Your task to perform on an android device: Go to Yahoo.com Image 0: 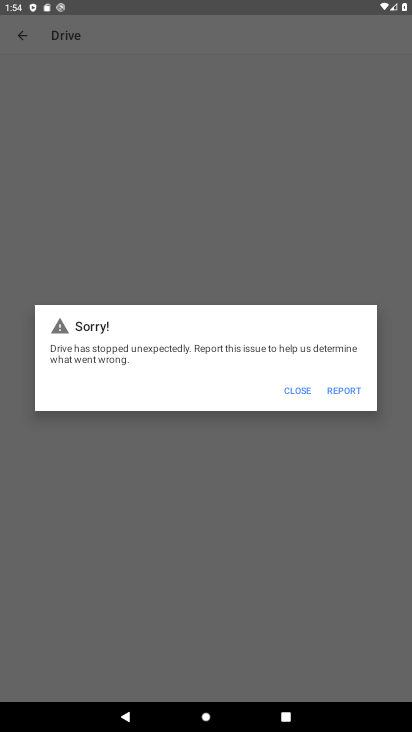
Step 0: press home button
Your task to perform on an android device: Go to Yahoo.com Image 1: 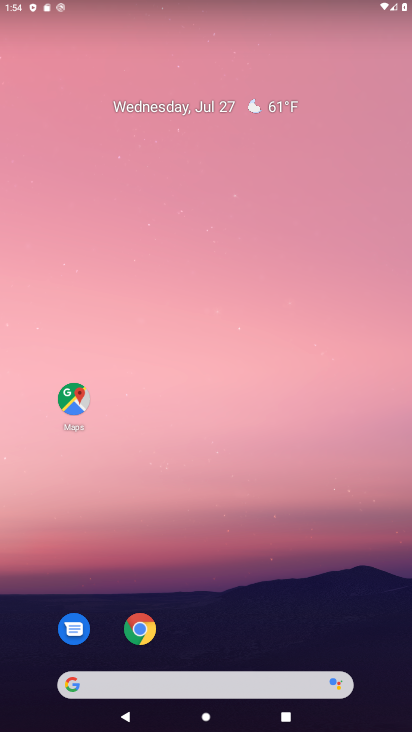
Step 1: click (143, 631)
Your task to perform on an android device: Go to Yahoo.com Image 2: 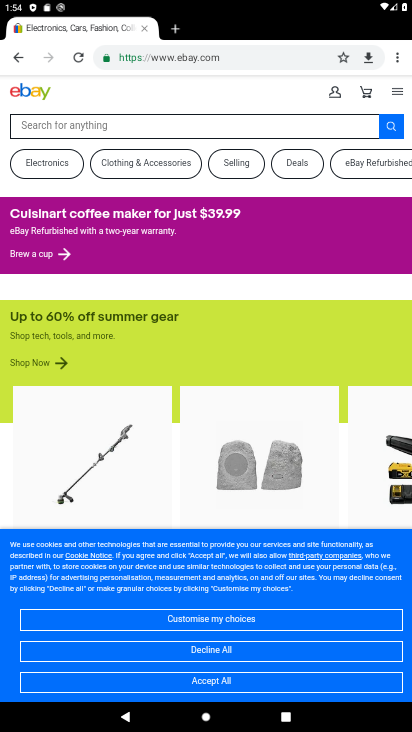
Step 2: click (270, 55)
Your task to perform on an android device: Go to Yahoo.com Image 3: 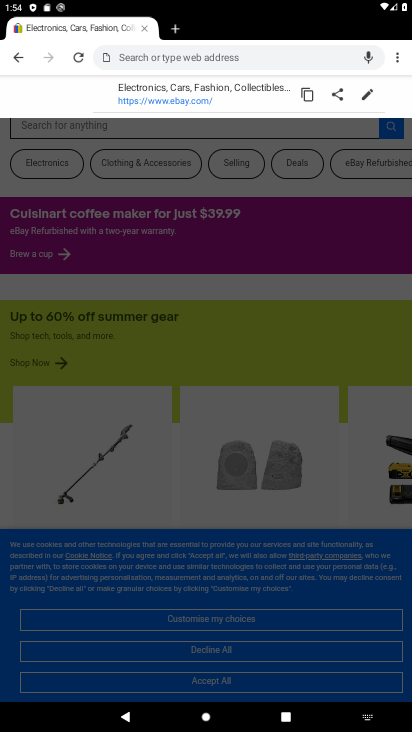
Step 3: type "Yahoo.com"
Your task to perform on an android device: Go to Yahoo.com Image 4: 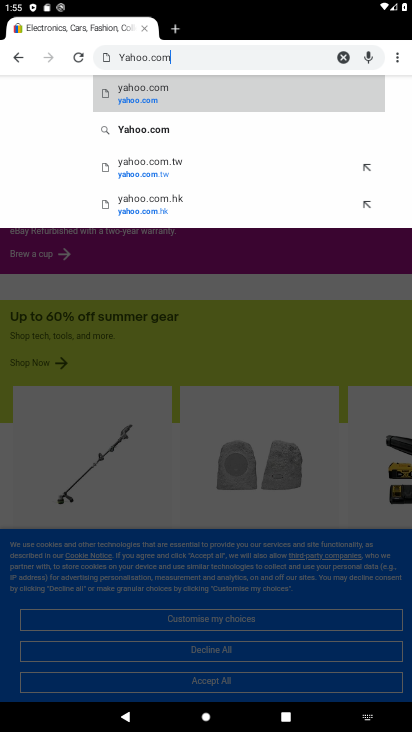
Step 4: click (141, 131)
Your task to perform on an android device: Go to Yahoo.com Image 5: 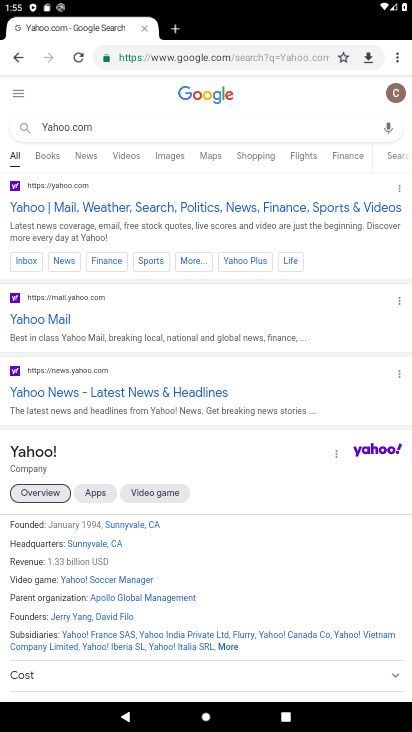
Step 5: click (148, 213)
Your task to perform on an android device: Go to Yahoo.com Image 6: 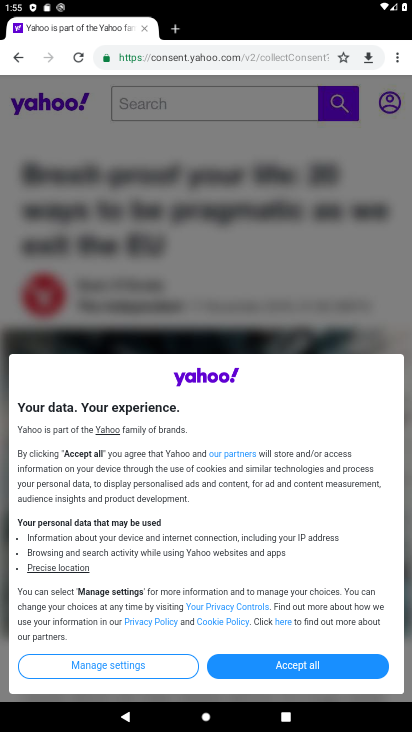
Step 6: click (285, 669)
Your task to perform on an android device: Go to Yahoo.com Image 7: 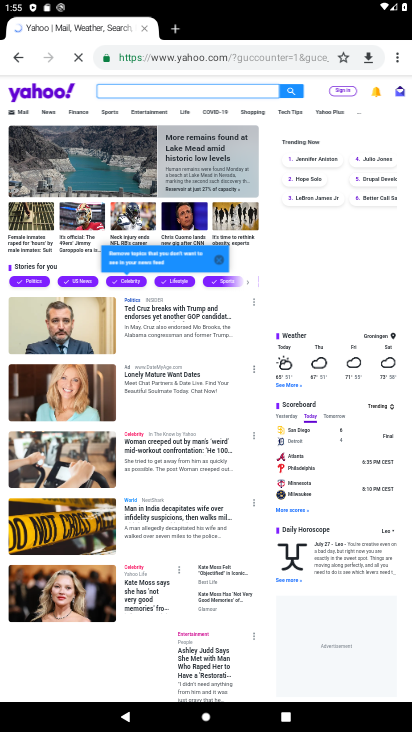
Step 7: task complete